Your task to perform on an android device: toggle translation in the chrome app Image 0: 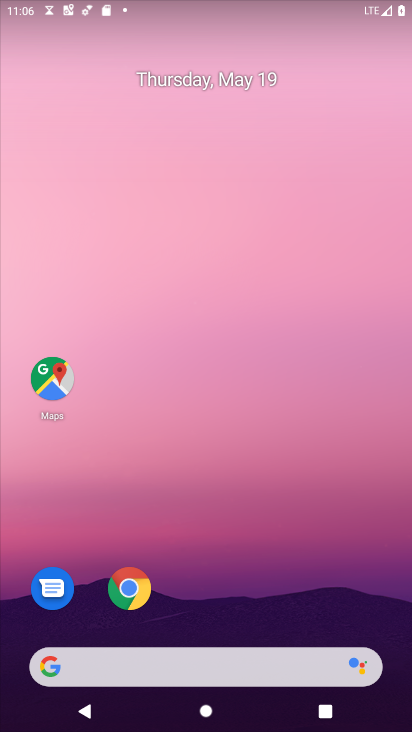
Step 0: click (122, 588)
Your task to perform on an android device: toggle translation in the chrome app Image 1: 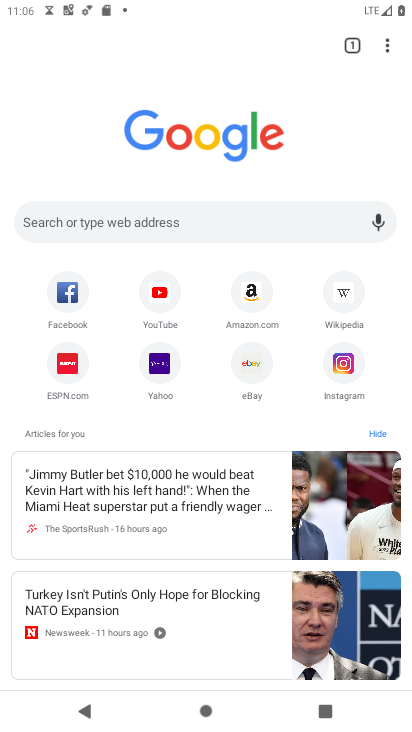
Step 1: click (388, 43)
Your task to perform on an android device: toggle translation in the chrome app Image 2: 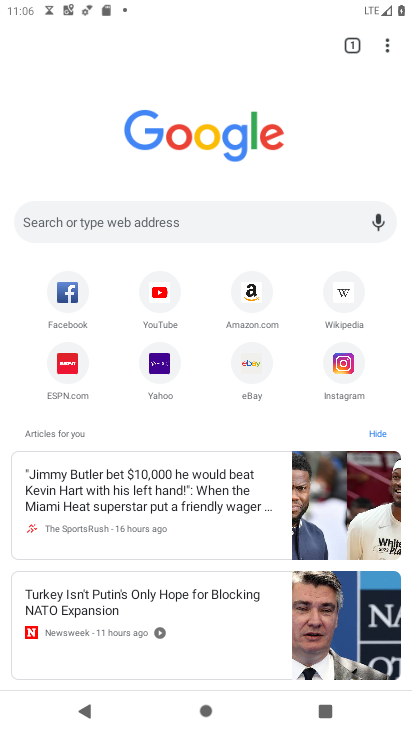
Step 2: click (388, 38)
Your task to perform on an android device: toggle translation in the chrome app Image 3: 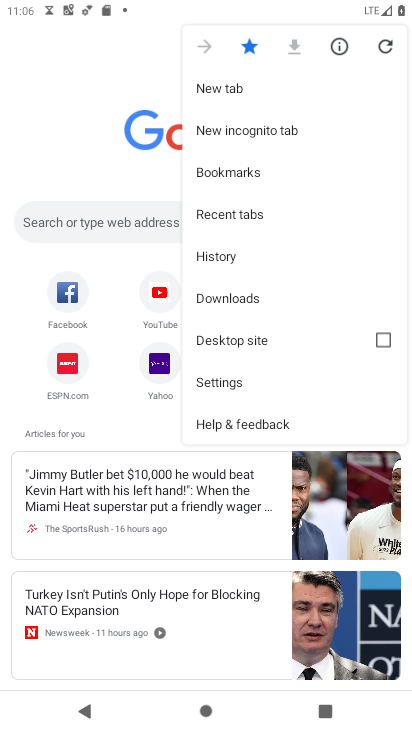
Step 3: click (251, 376)
Your task to perform on an android device: toggle translation in the chrome app Image 4: 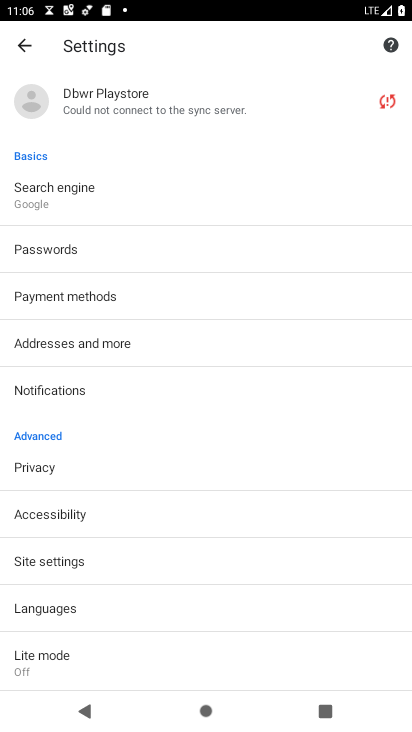
Step 4: click (78, 605)
Your task to perform on an android device: toggle translation in the chrome app Image 5: 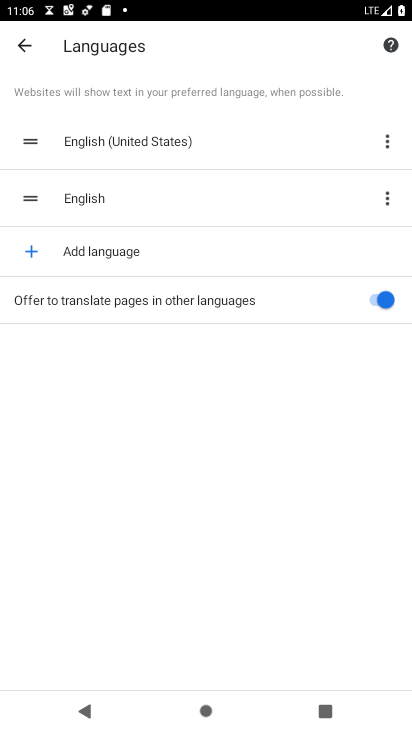
Step 5: click (380, 302)
Your task to perform on an android device: toggle translation in the chrome app Image 6: 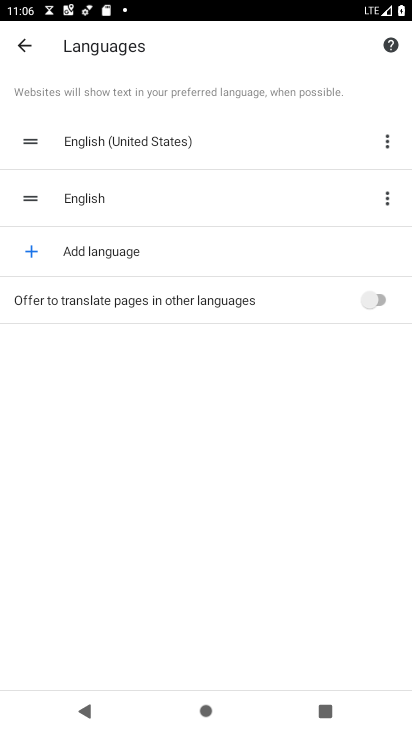
Step 6: task complete